Your task to perform on an android device: empty trash in the gmail app Image 0: 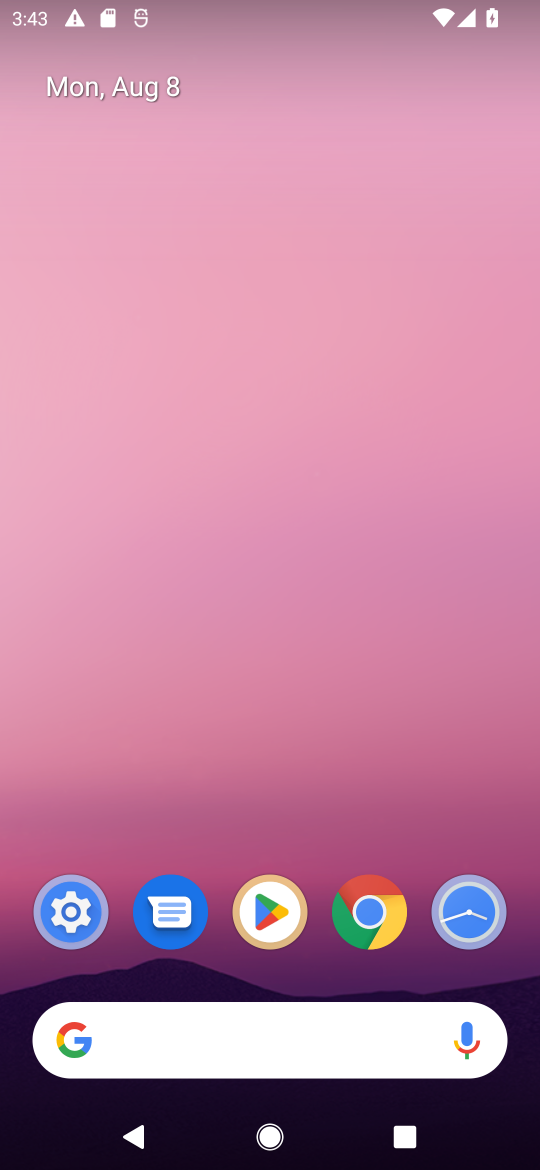
Step 0: drag from (221, 913) to (265, 279)
Your task to perform on an android device: empty trash in the gmail app Image 1: 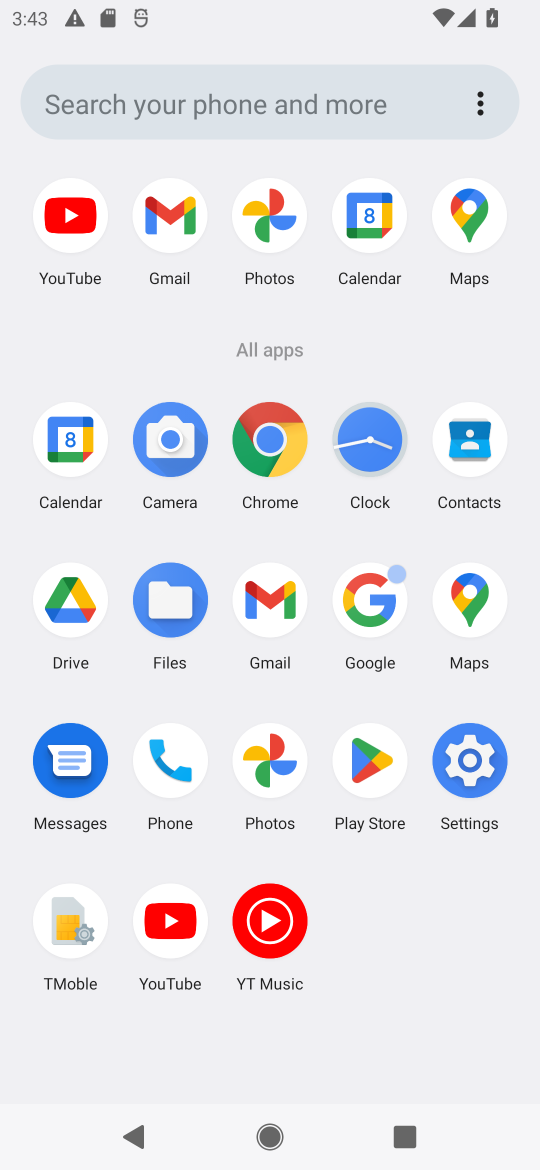
Step 1: click (153, 212)
Your task to perform on an android device: empty trash in the gmail app Image 2: 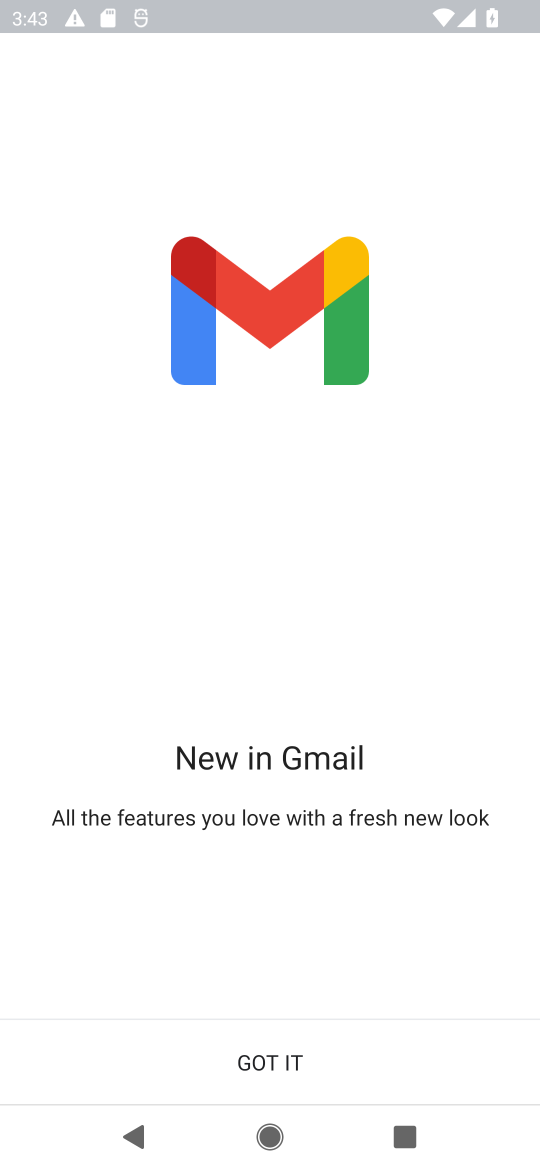
Step 2: click (267, 1041)
Your task to perform on an android device: empty trash in the gmail app Image 3: 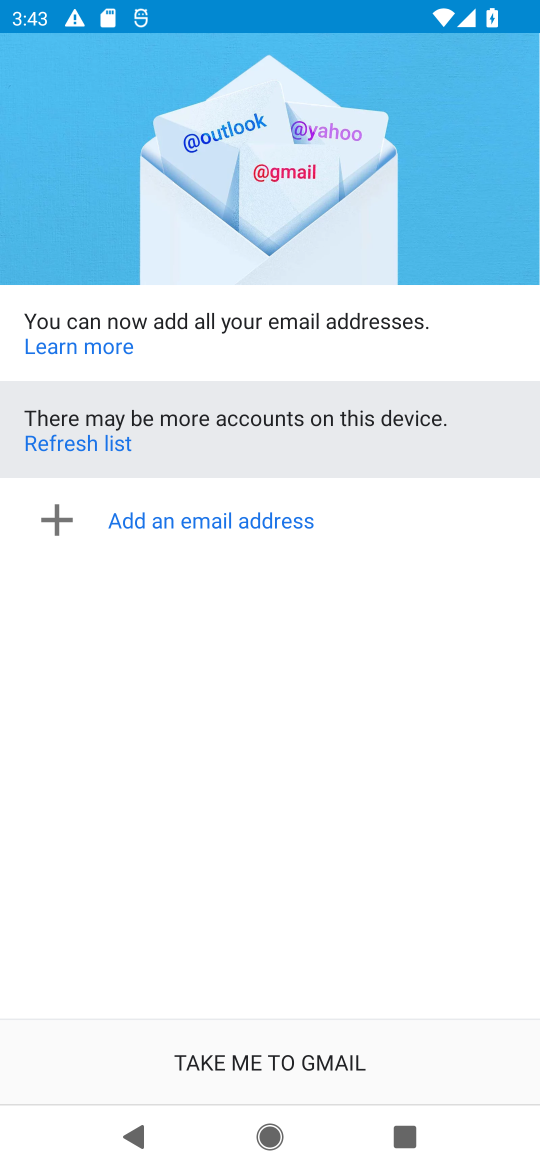
Step 3: click (286, 1072)
Your task to perform on an android device: empty trash in the gmail app Image 4: 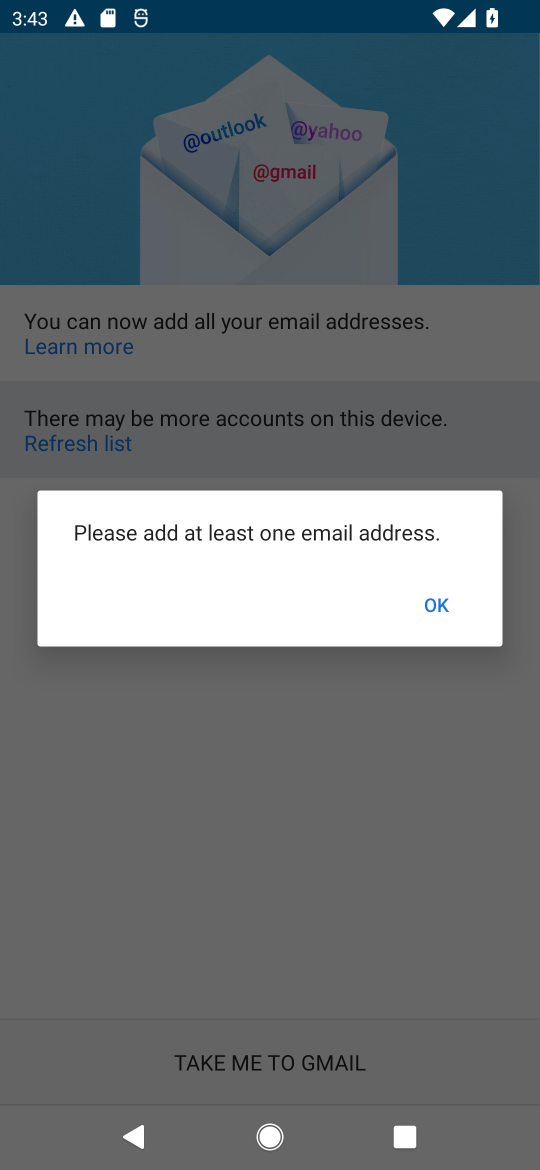
Step 4: task complete